Your task to perform on an android device: Do I have any events tomorrow? Image 0: 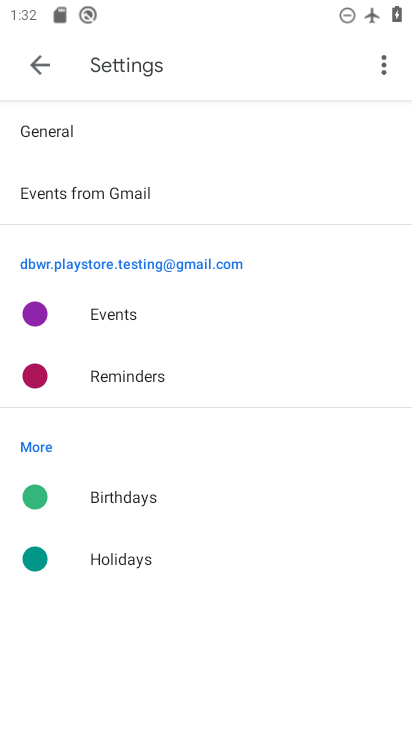
Step 0: press home button
Your task to perform on an android device: Do I have any events tomorrow? Image 1: 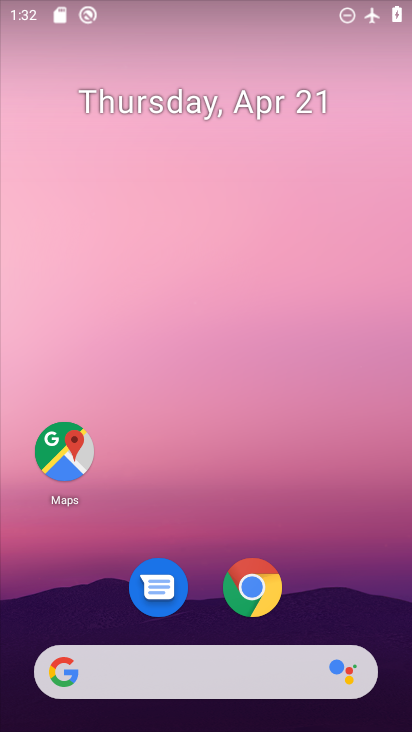
Step 1: drag from (311, 504) to (304, 110)
Your task to perform on an android device: Do I have any events tomorrow? Image 2: 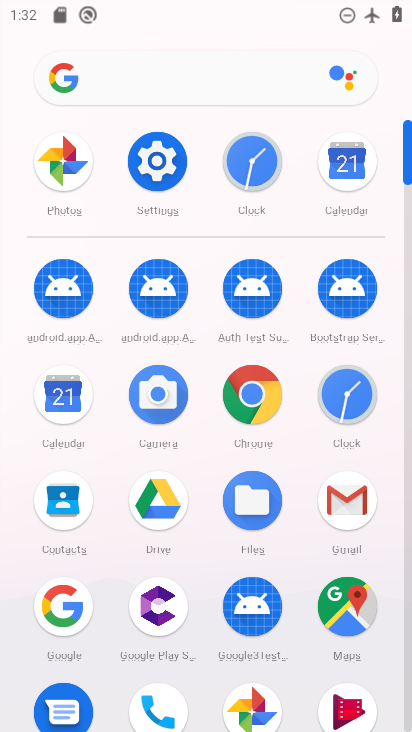
Step 2: click (68, 394)
Your task to perform on an android device: Do I have any events tomorrow? Image 3: 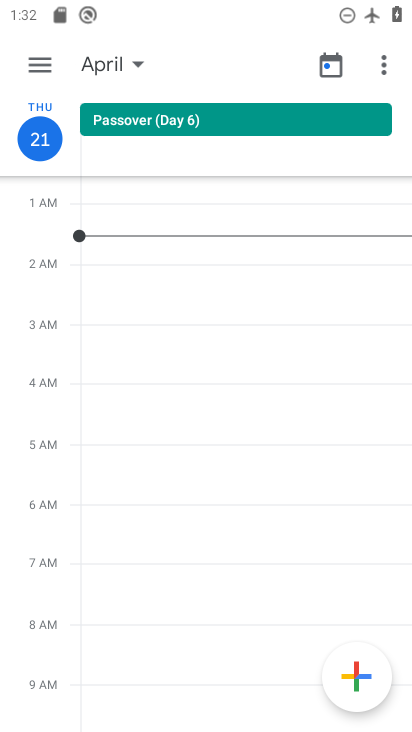
Step 3: click (134, 62)
Your task to perform on an android device: Do I have any events tomorrow? Image 4: 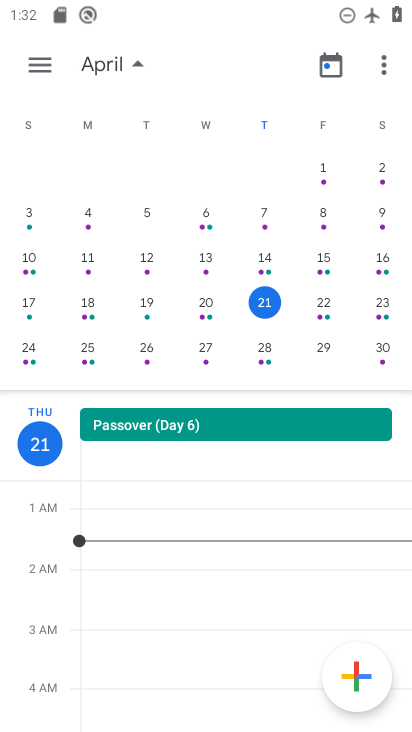
Step 4: click (321, 301)
Your task to perform on an android device: Do I have any events tomorrow? Image 5: 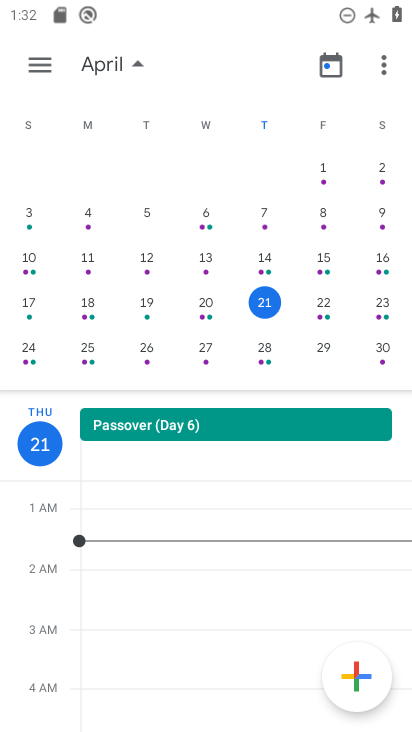
Step 5: click (320, 299)
Your task to perform on an android device: Do I have any events tomorrow? Image 6: 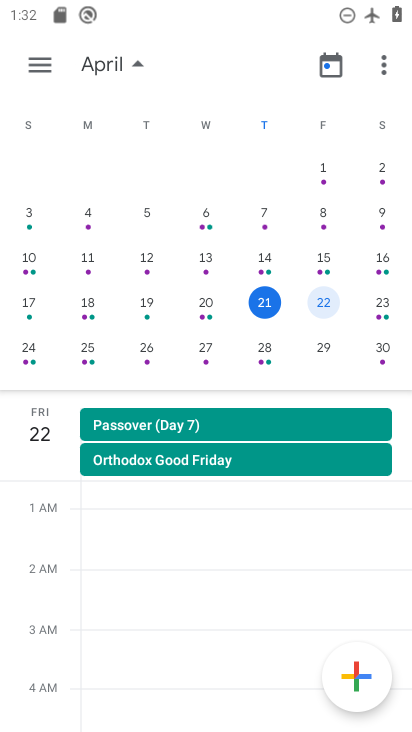
Step 6: task complete